Your task to perform on an android device: Check the latest toasters on Target. Image 0: 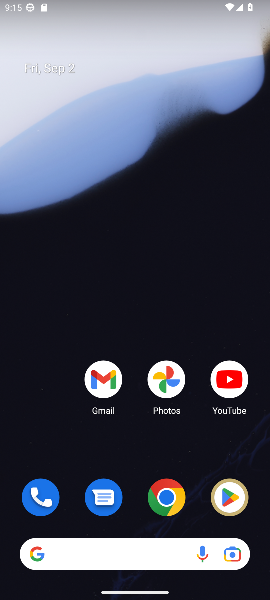
Step 0: drag from (135, 520) to (132, 95)
Your task to perform on an android device: Check the latest toasters on Target. Image 1: 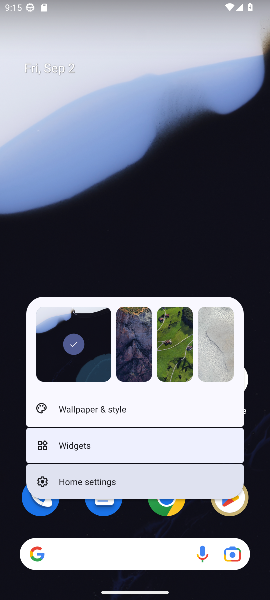
Step 1: click (140, 524)
Your task to perform on an android device: Check the latest toasters on Target. Image 2: 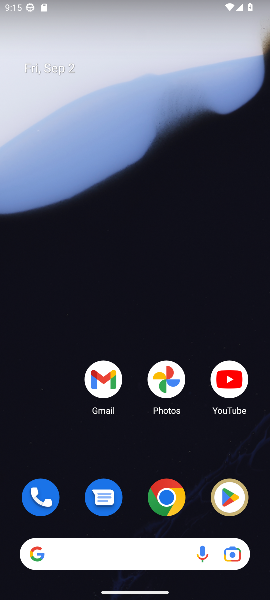
Step 2: drag from (140, 524) to (145, 58)
Your task to perform on an android device: Check the latest toasters on Target. Image 3: 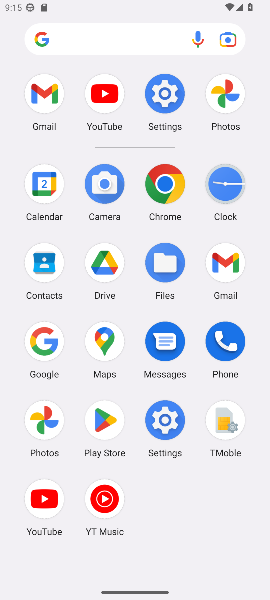
Step 3: click (38, 336)
Your task to perform on an android device: Check the latest toasters on Target. Image 4: 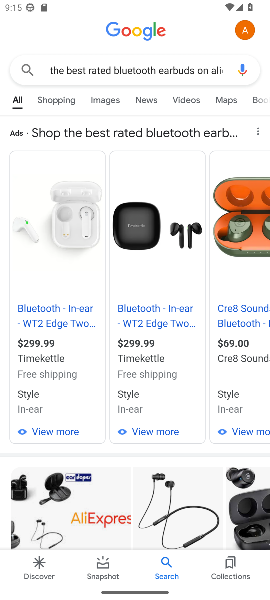
Step 4: click (206, 73)
Your task to perform on an android device: Check the latest toasters on Target. Image 5: 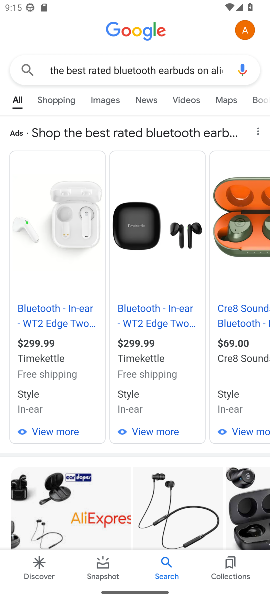
Step 5: click (206, 73)
Your task to perform on an android device: Check the latest toasters on Target. Image 6: 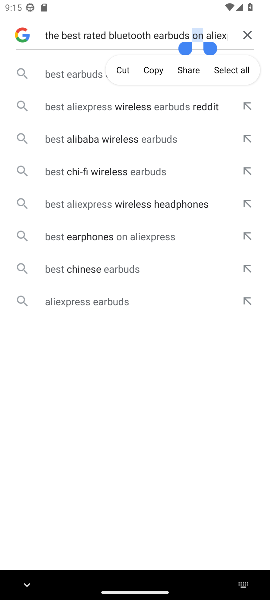
Step 6: click (246, 30)
Your task to perform on an android device: Check the latest toasters on Target. Image 7: 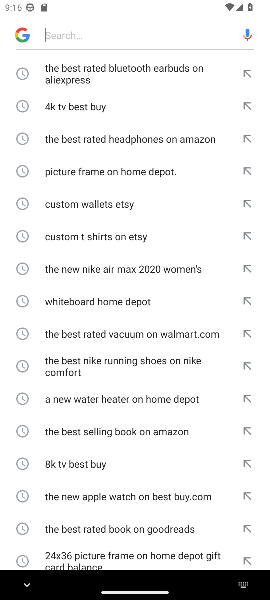
Step 7: type "the latest toasters on Target"
Your task to perform on an android device: Check the latest toasters on Target. Image 8: 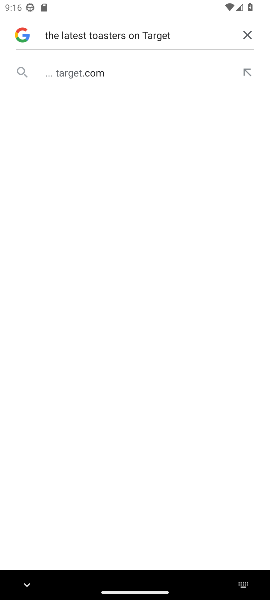
Step 8: click (95, 69)
Your task to perform on an android device: Check the latest toasters on Target. Image 9: 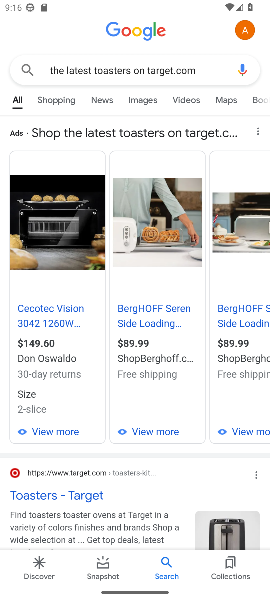
Step 9: task complete